Your task to perform on an android device: open app "Firefox Browser" Image 0: 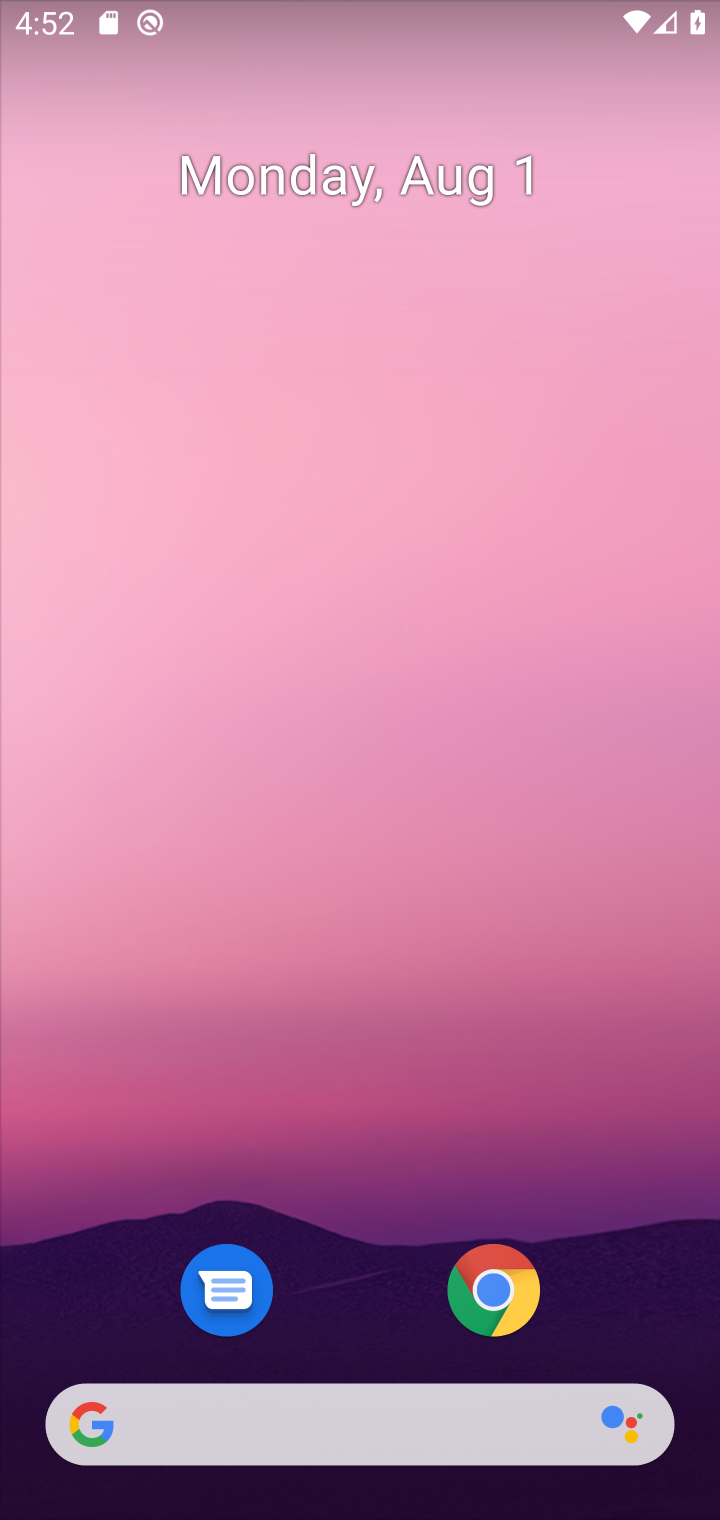
Step 0: drag from (408, 1416) to (323, 15)
Your task to perform on an android device: open app "Firefox Browser" Image 1: 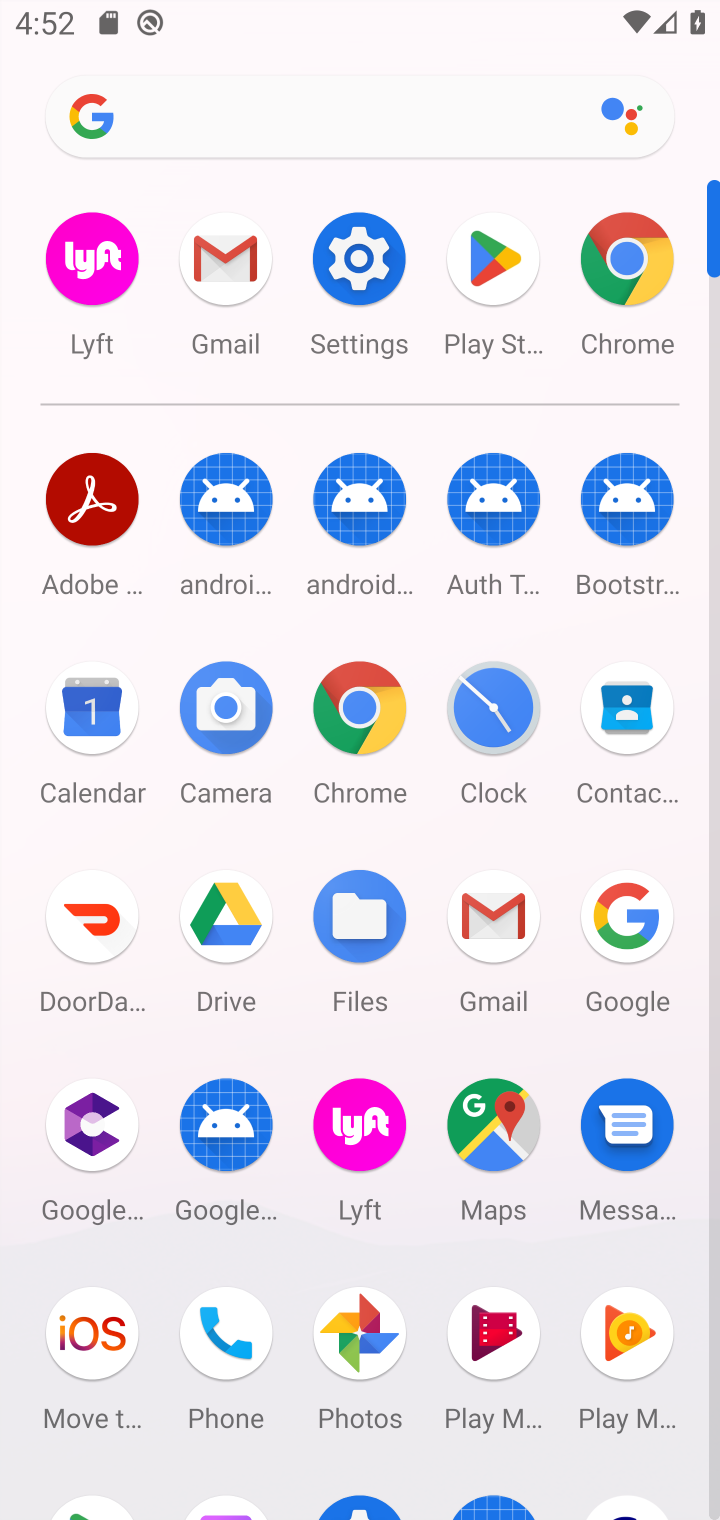
Step 1: click (490, 249)
Your task to perform on an android device: open app "Firefox Browser" Image 2: 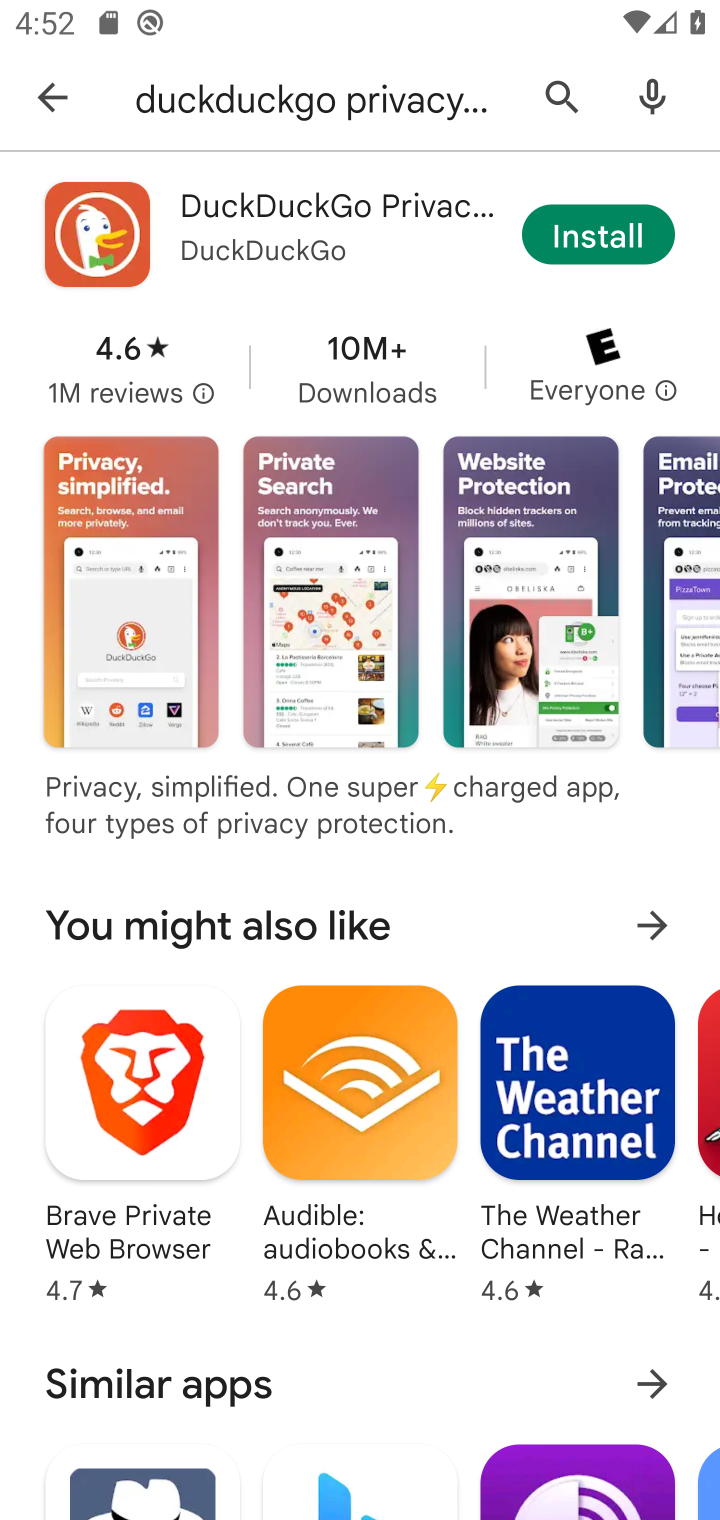
Step 2: click (554, 89)
Your task to perform on an android device: open app "Firefox Browser" Image 3: 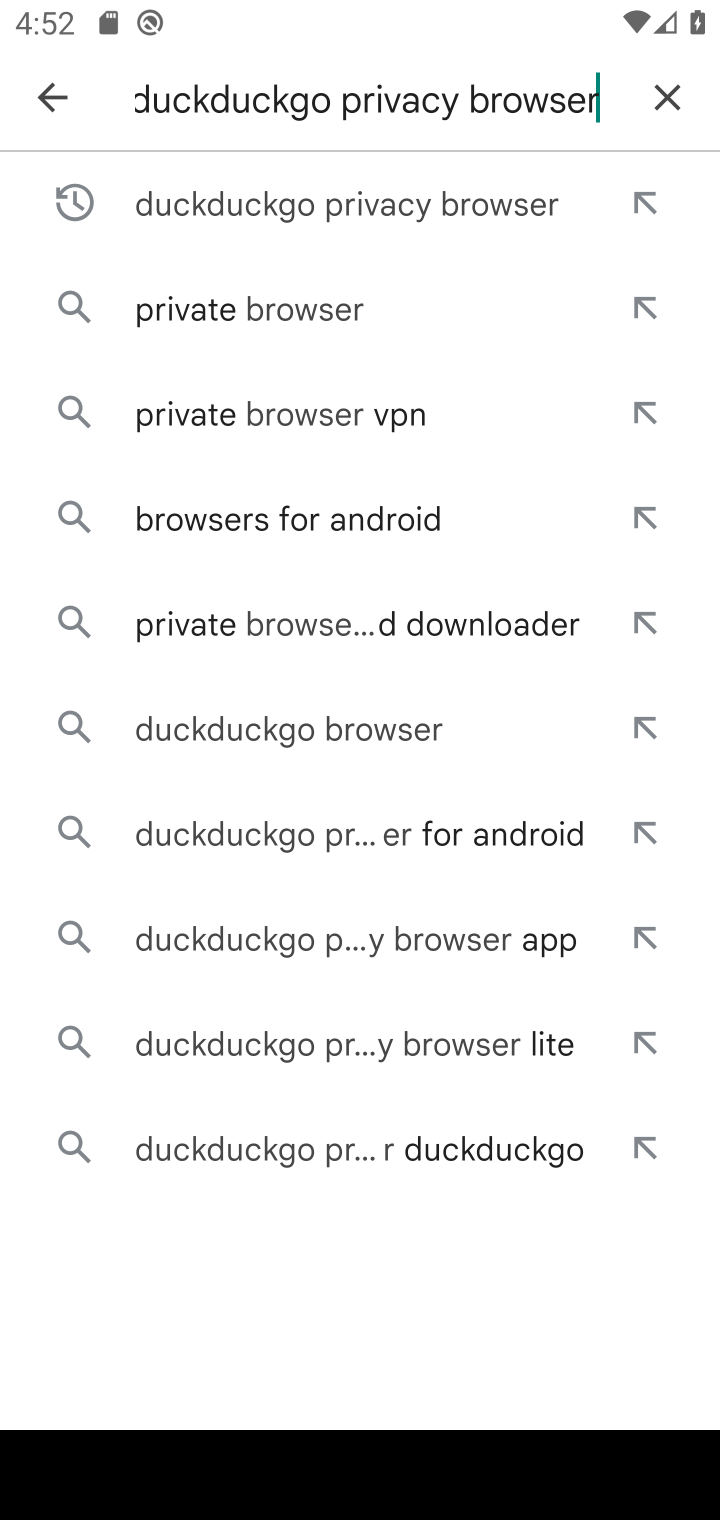
Step 3: click (675, 95)
Your task to perform on an android device: open app "Firefox Browser" Image 4: 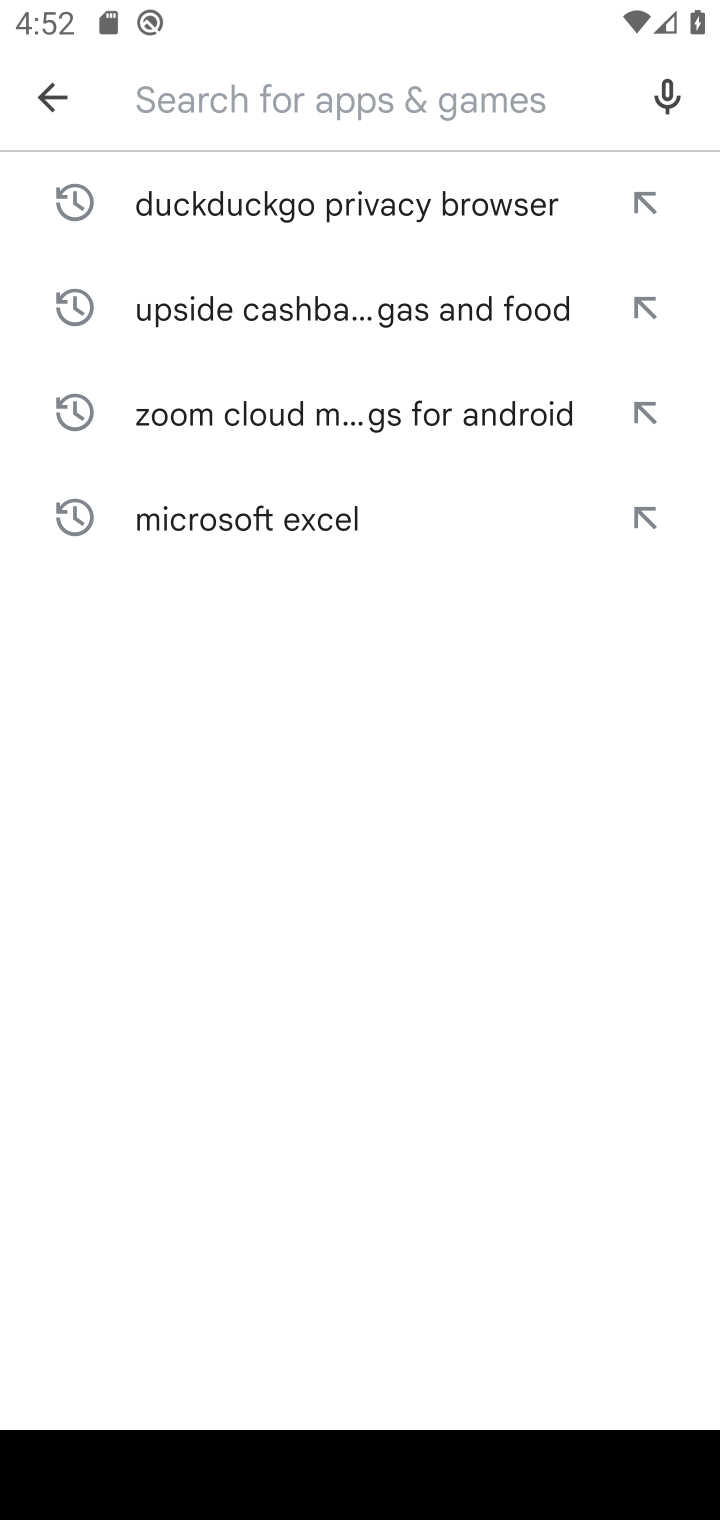
Step 4: type "firefox browser"
Your task to perform on an android device: open app "Firefox Browser" Image 5: 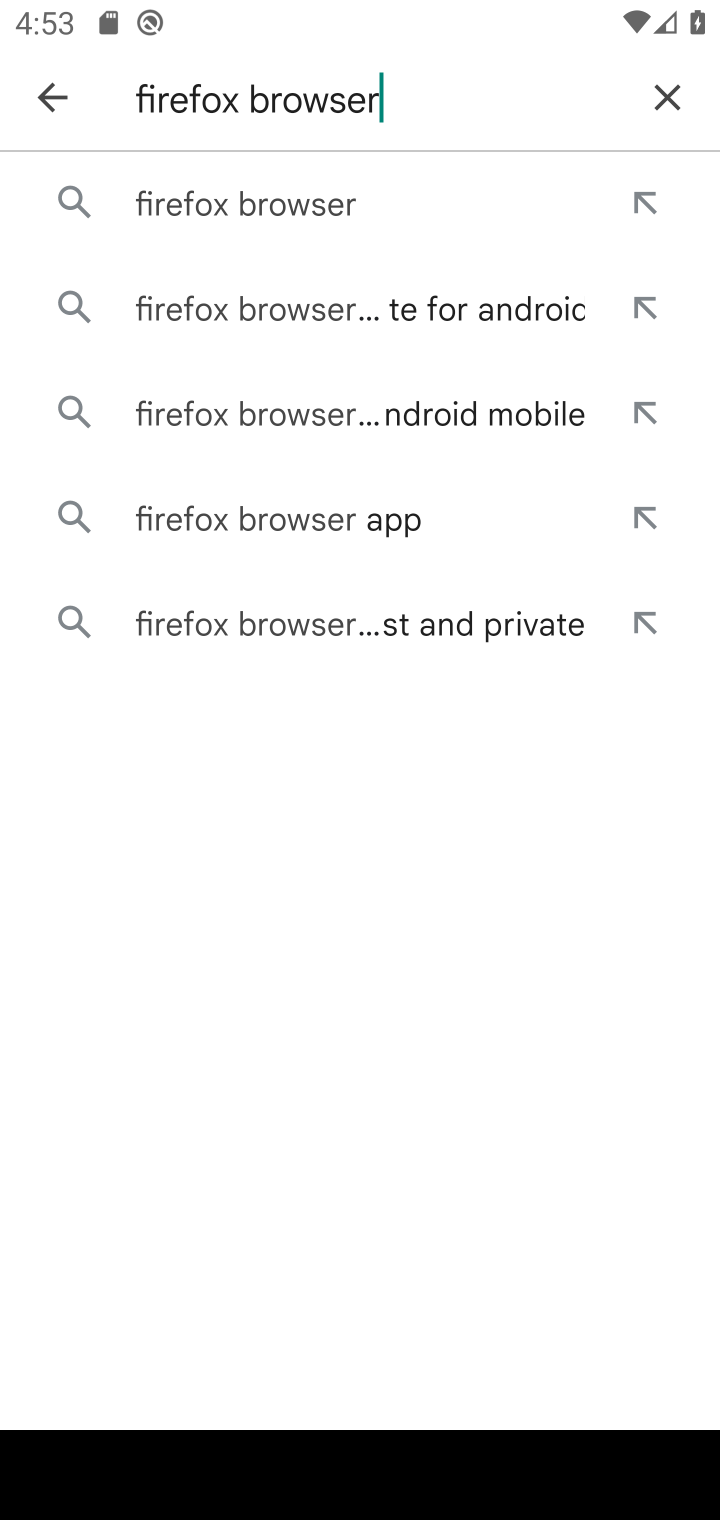
Step 5: click (319, 179)
Your task to perform on an android device: open app "Firefox Browser" Image 6: 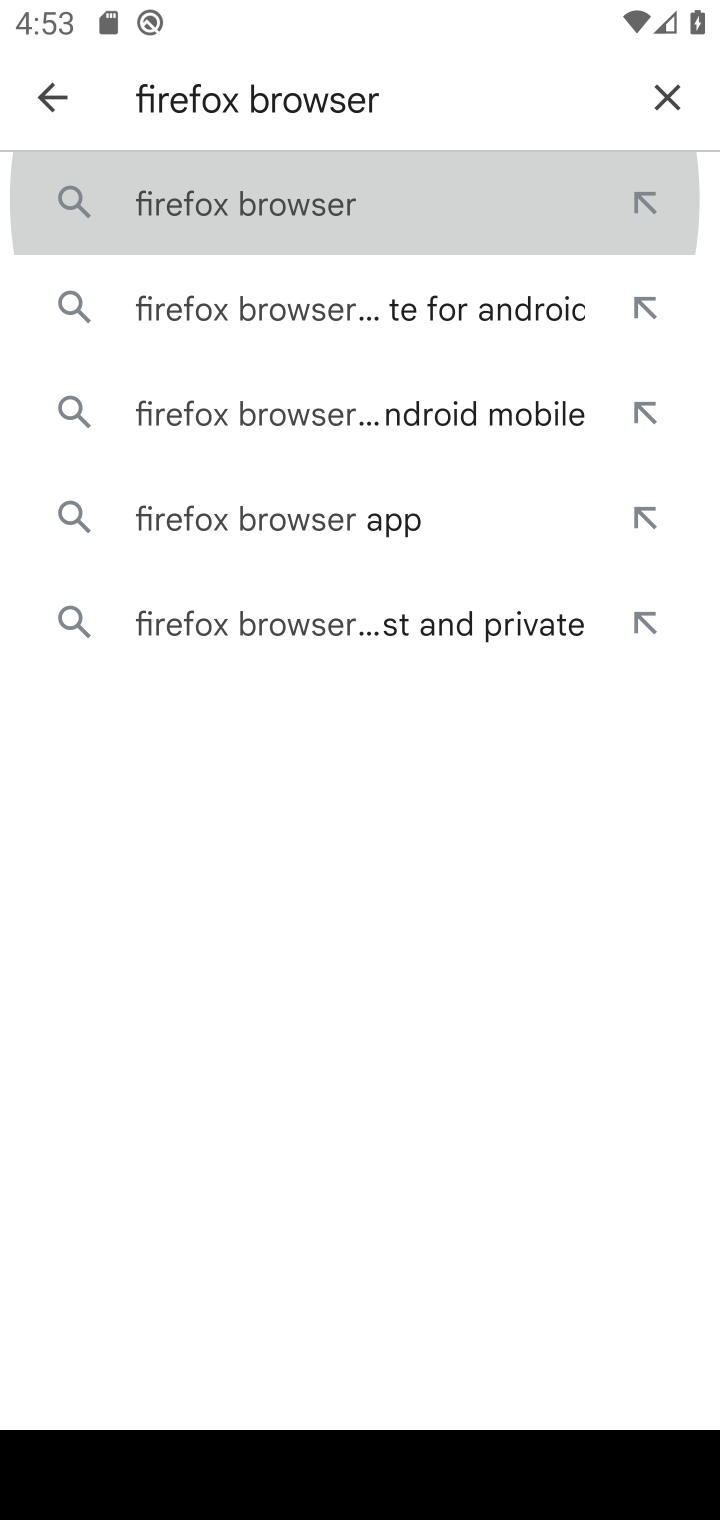
Step 6: click (319, 179)
Your task to perform on an android device: open app "Firefox Browser" Image 7: 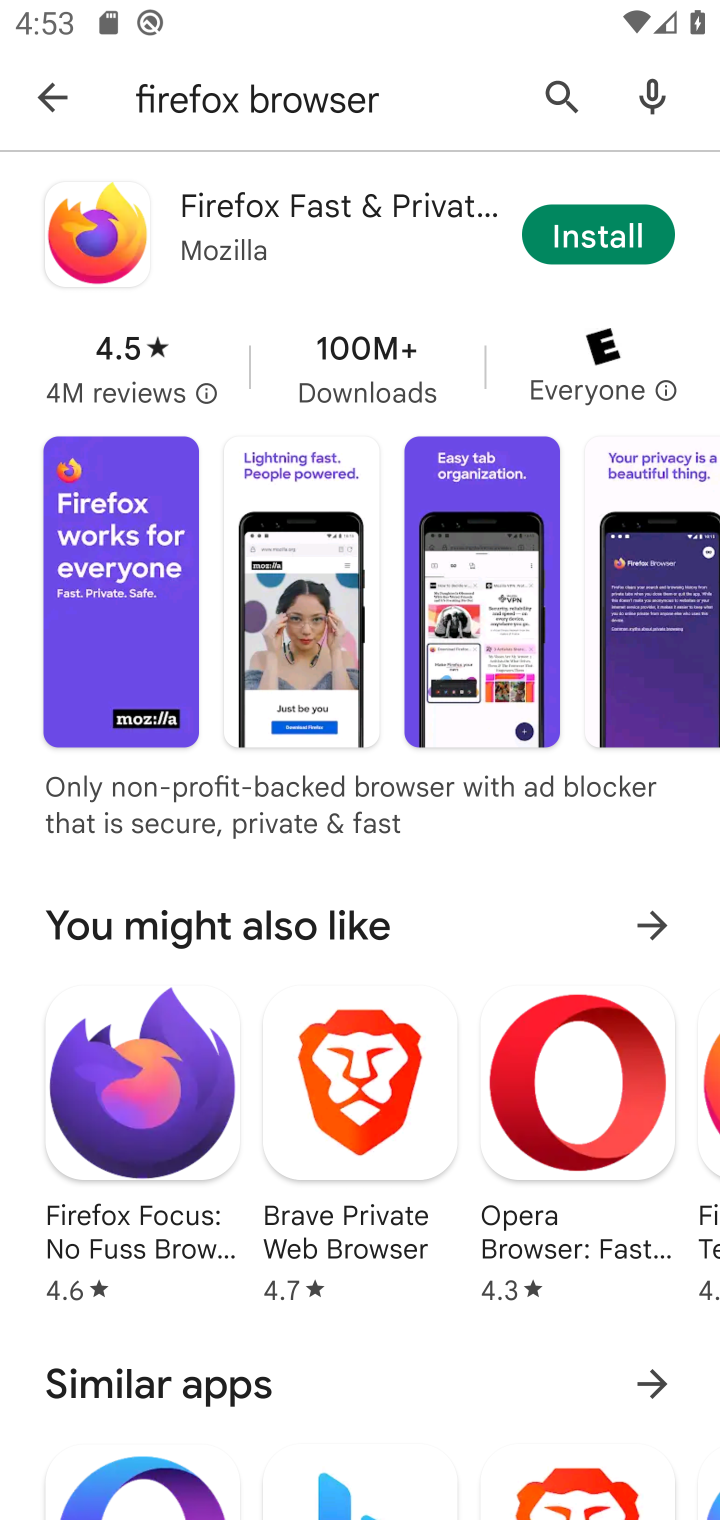
Step 7: task complete